Your task to perform on an android device: toggle notifications settings in the gmail app Image 0: 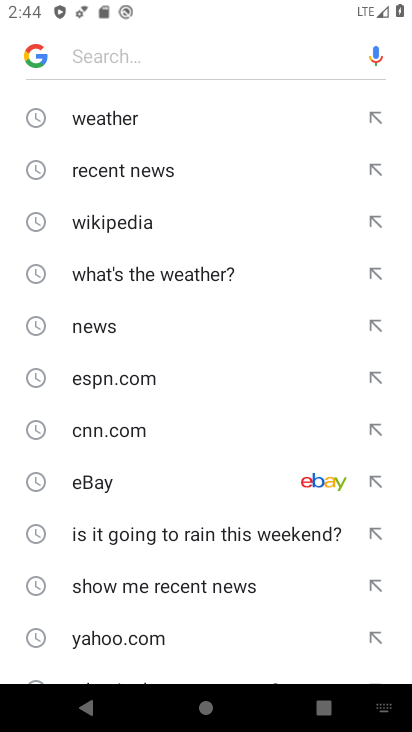
Step 0: press home button
Your task to perform on an android device: toggle notifications settings in the gmail app Image 1: 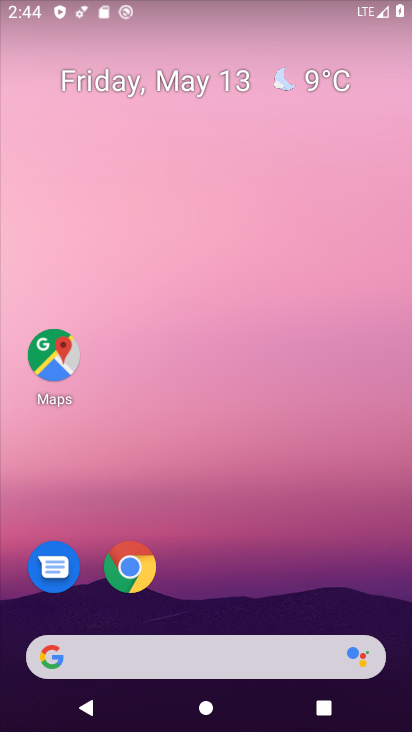
Step 1: drag from (304, 602) to (342, 3)
Your task to perform on an android device: toggle notifications settings in the gmail app Image 2: 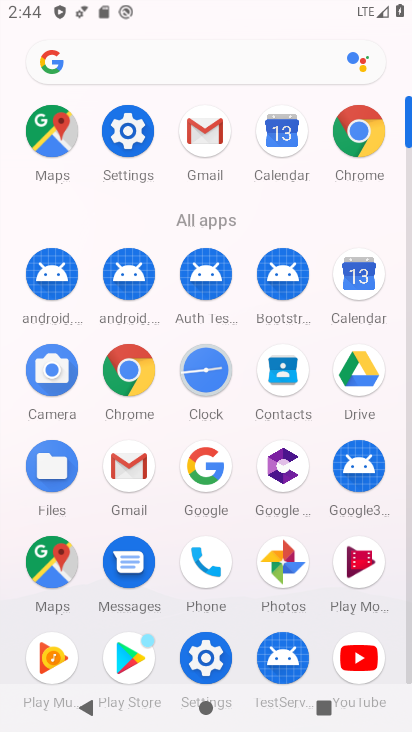
Step 2: click (209, 140)
Your task to perform on an android device: toggle notifications settings in the gmail app Image 3: 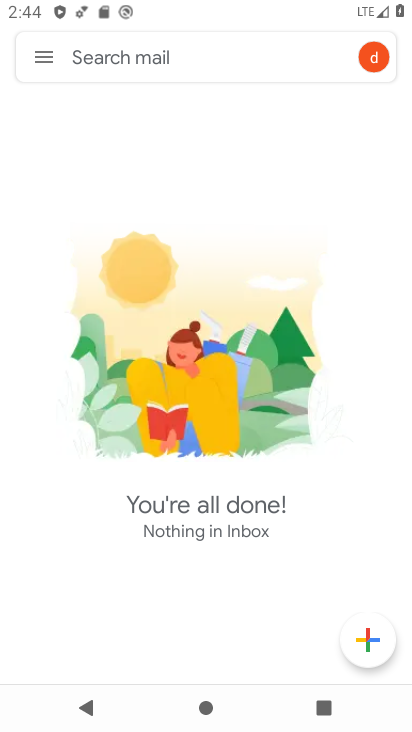
Step 3: click (42, 57)
Your task to perform on an android device: toggle notifications settings in the gmail app Image 4: 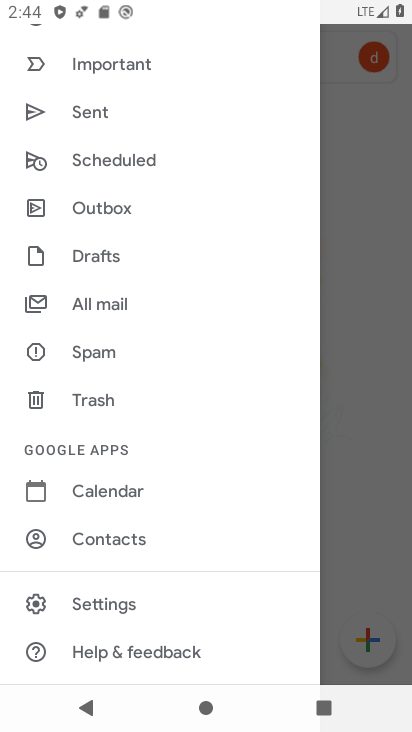
Step 4: click (94, 602)
Your task to perform on an android device: toggle notifications settings in the gmail app Image 5: 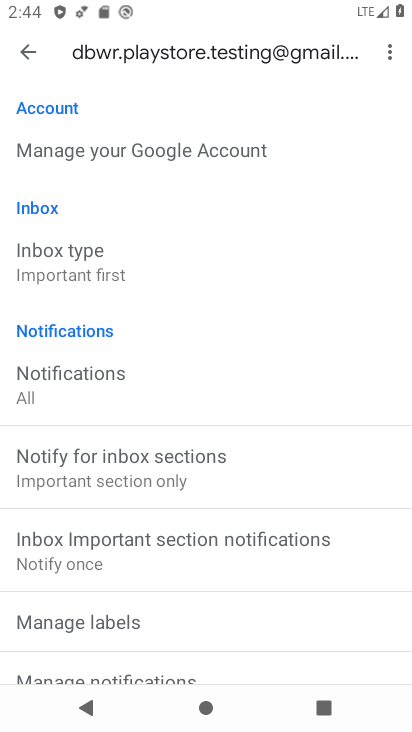
Step 5: click (29, 58)
Your task to perform on an android device: toggle notifications settings in the gmail app Image 6: 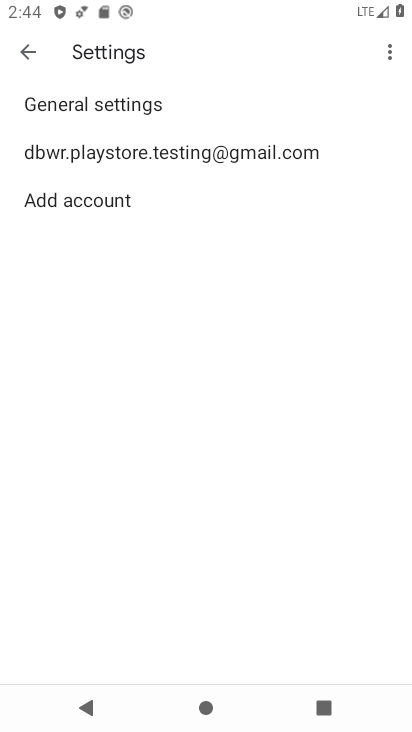
Step 6: click (85, 104)
Your task to perform on an android device: toggle notifications settings in the gmail app Image 7: 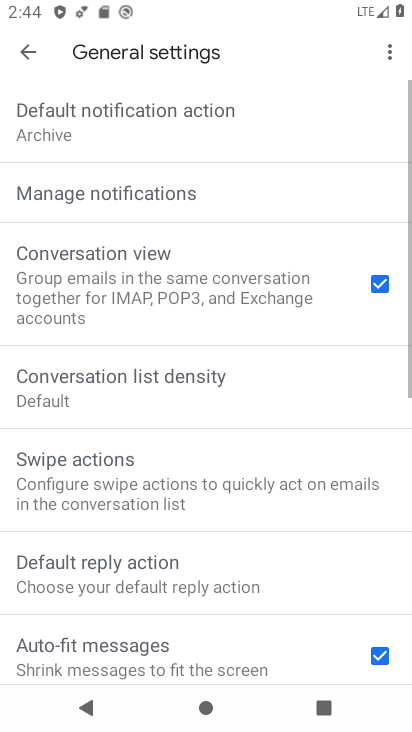
Step 7: click (101, 193)
Your task to perform on an android device: toggle notifications settings in the gmail app Image 8: 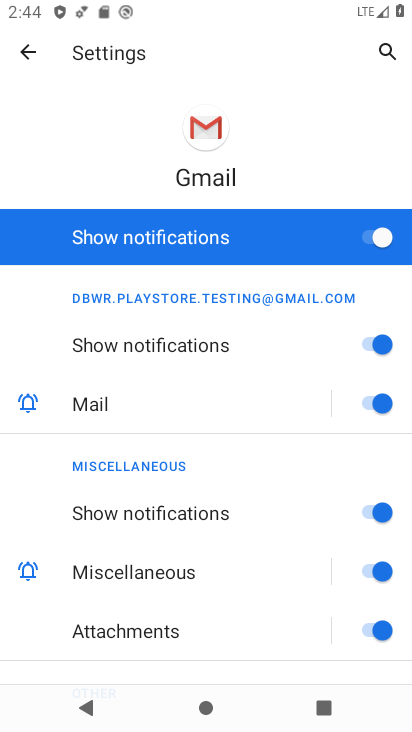
Step 8: click (381, 240)
Your task to perform on an android device: toggle notifications settings in the gmail app Image 9: 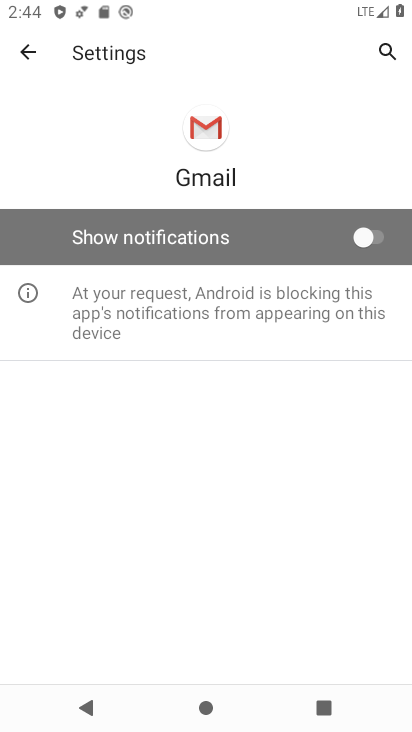
Step 9: task complete